Your task to perform on an android device: delete browsing data in the chrome app Image 0: 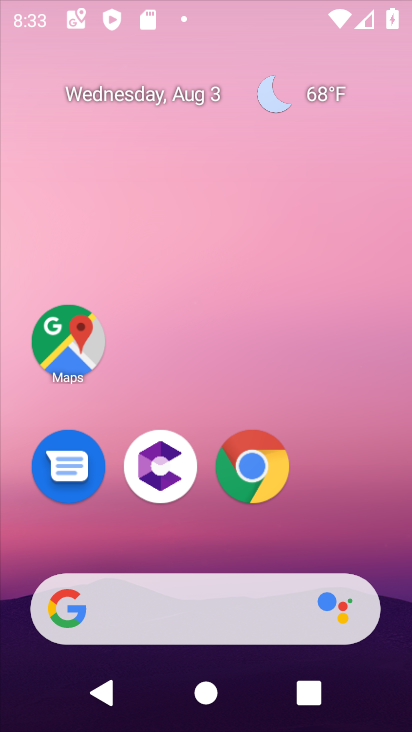
Step 0: drag from (353, 529) to (344, 99)
Your task to perform on an android device: delete browsing data in the chrome app Image 1: 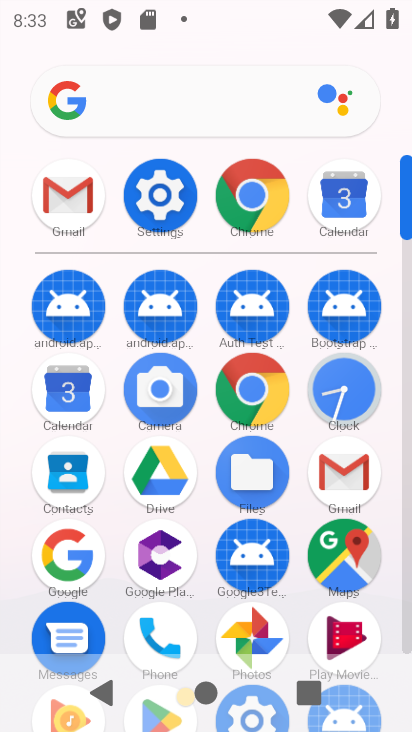
Step 1: click (259, 379)
Your task to perform on an android device: delete browsing data in the chrome app Image 2: 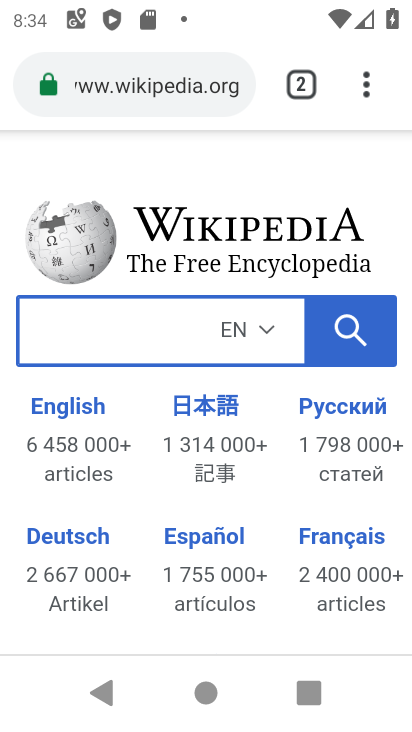
Step 2: drag from (375, 77) to (122, 478)
Your task to perform on an android device: delete browsing data in the chrome app Image 3: 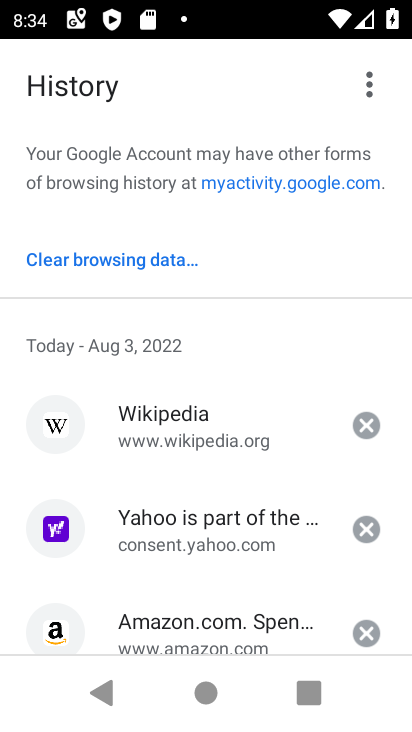
Step 3: click (151, 262)
Your task to perform on an android device: delete browsing data in the chrome app Image 4: 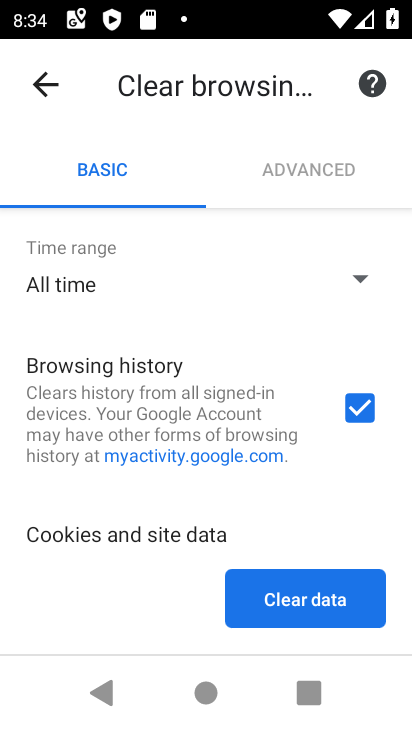
Step 4: click (325, 596)
Your task to perform on an android device: delete browsing data in the chrome app Image 5: 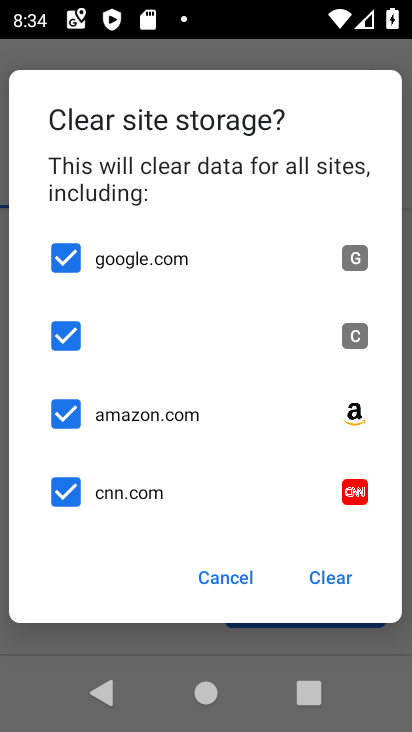
Step 5: click (328, 573)
Your task to perform on an android device: delete browsing data in the chrome app Image 6: 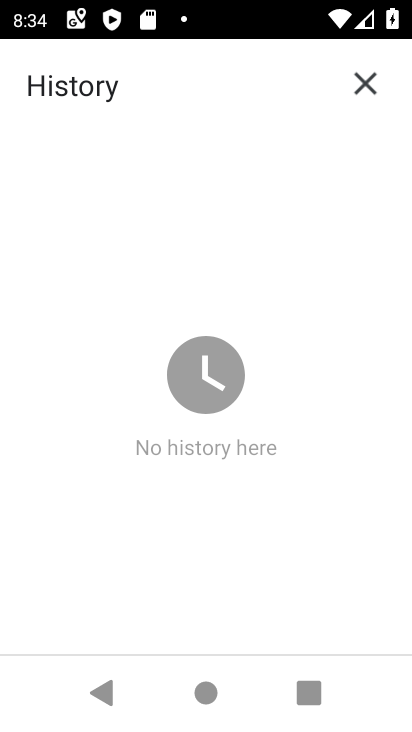
Step 6: task complete